Your task to perform on an android device: When is my next meeting? Image 0: 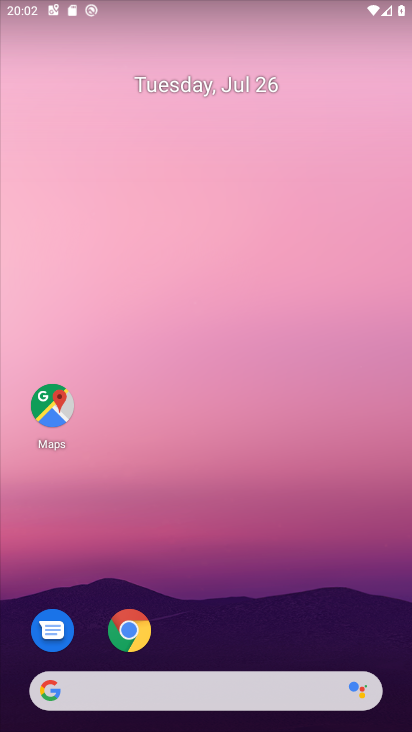
Step 0: drag from (387, 668) to (340, 136)
Your task to perform on an android device: When is my next meeting? Image 1: 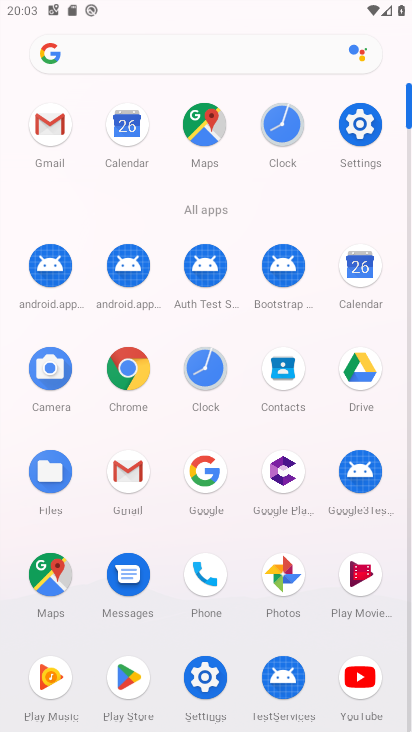
Step 1: click (360, 272)
Your task to perform on an android device: When is my next meeting? Image 2: 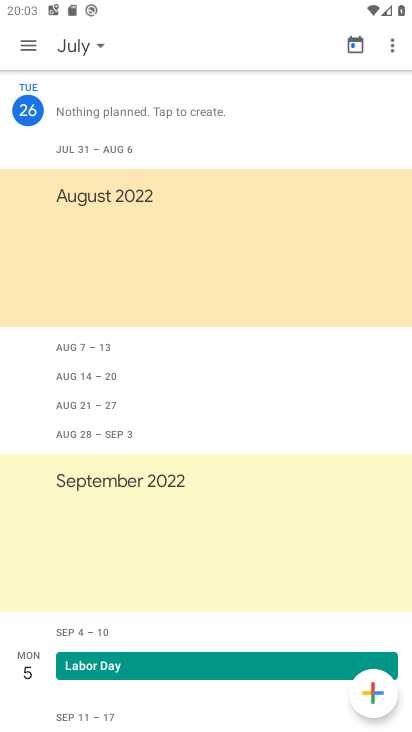
Step 2: click (31, 49)
Your task to perform on an android device: When is my next meeting? Image 3: 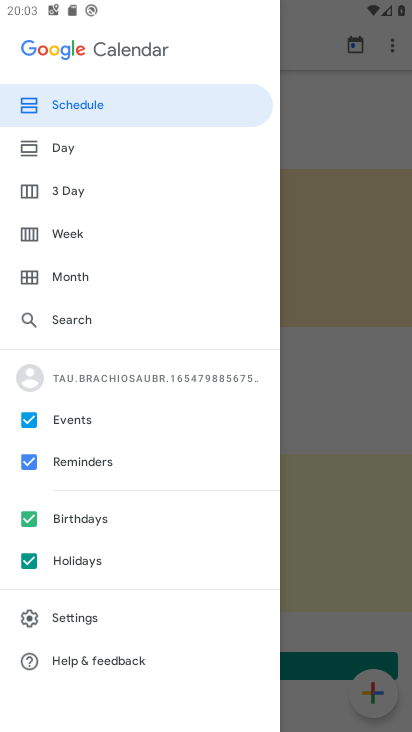
Step 3: click (28, 559)
Your task to perform on an android device: When is my next meeting? Image 4: 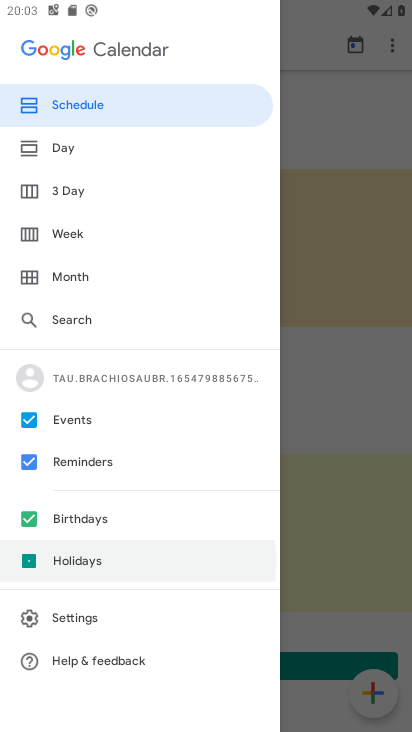
Step 4: click (32, 515)
Your task to perform on an android device: When is my next meeting? Image 5: 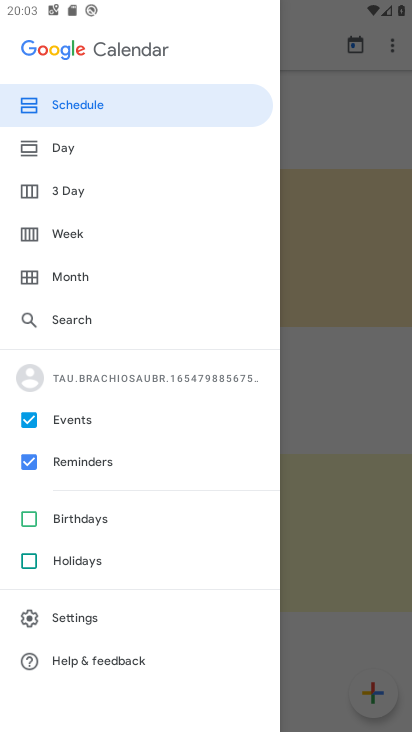
Step 5: click (29, 460)
Your task to perform on an android device: When is my next meeting? Image 6: 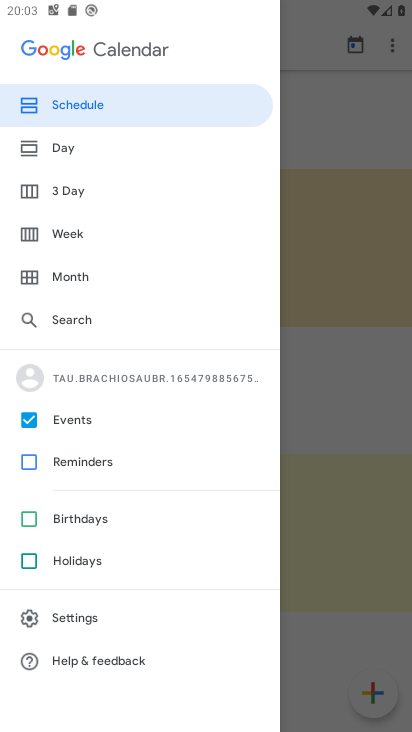
Step 6: click (66, 107)
Your task to perform on an android device: When is my next meeting? Image 7: 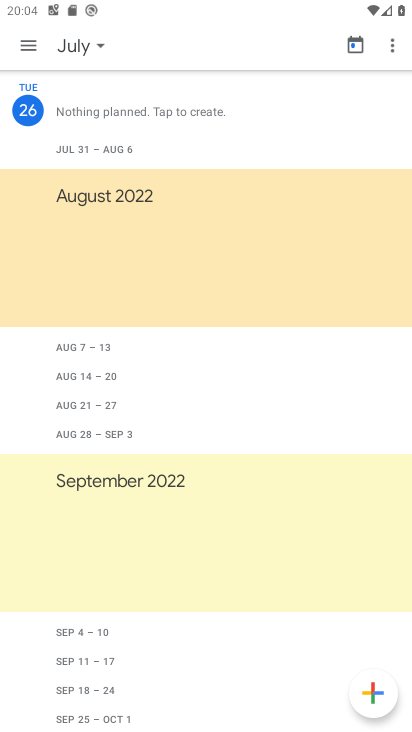
Step 7: task complete